Your task to perform on an android device: Go to Google maps Image 0: 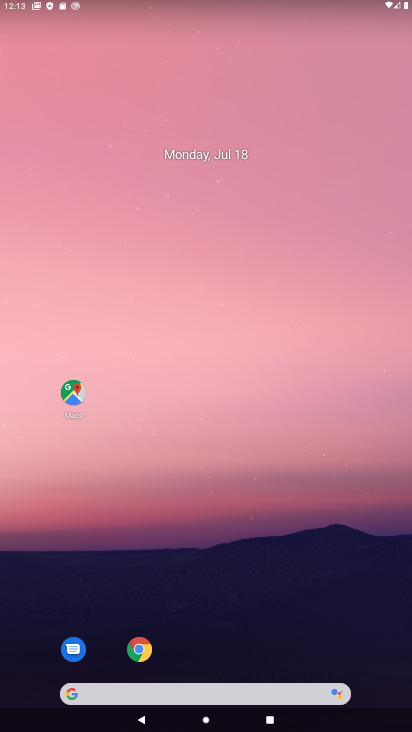
Step 0: click (70, 389)
Your task to perform on an android device: Go to Google maps Image 1: 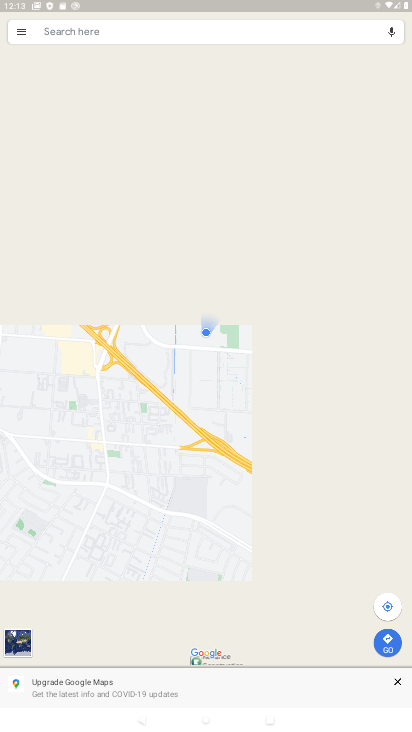
Step 1: task complete